Your task to perform on an android device: Search for vegetarian restaurants on Maps Image 0: 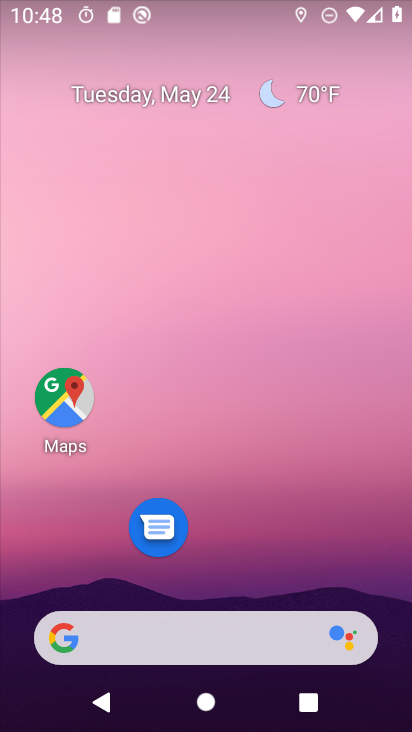
Step 0: drag from (251, 539) to (256, 93)
Your task to perform on an android device: Search for vegetarian restaurants on Maps Image 1: 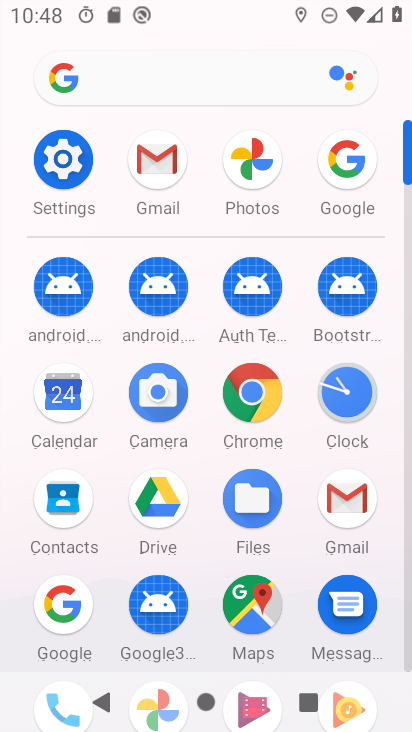
Step 1: click (257, 603)
Your task to perform on an android device: Search for vegetarian restaurants on Maps Image 2: 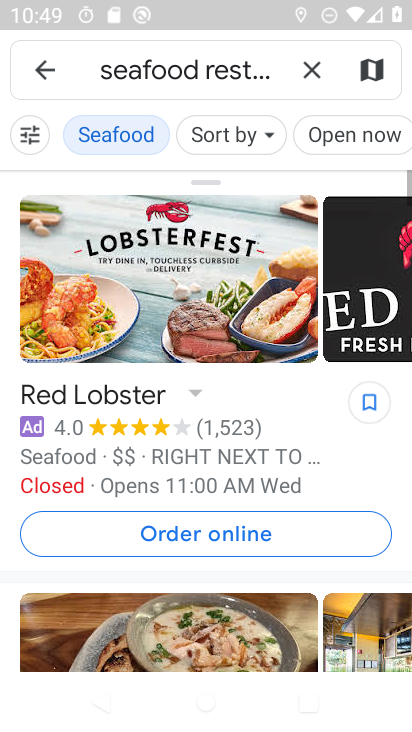
Step 2: click (276, 67)
Your task to perform on an android device: Search for vegetarian restaurants on Maps Image 3: 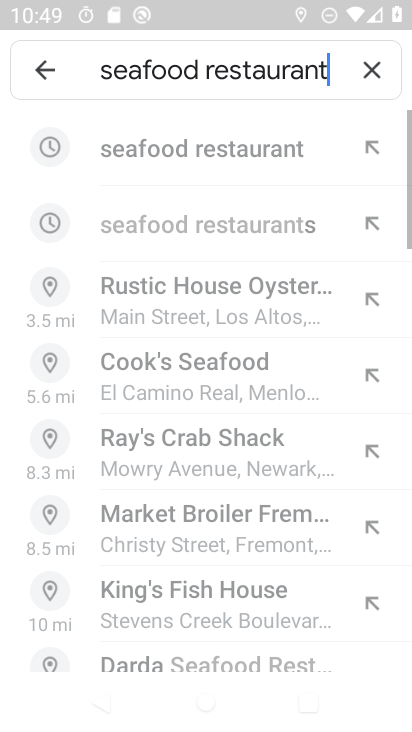
Step 3: click (366, 67)
Your task to perform on an android device: Search for vegetarian restaurants on Maps Image 4: 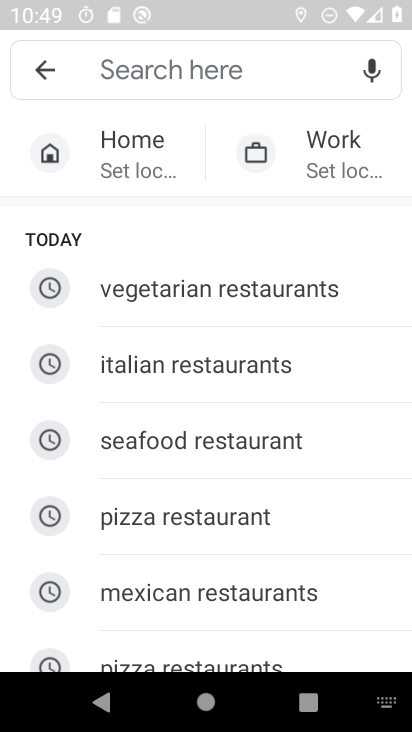
Step 4: click (185, 296)
Your task to perform on an android device: Search for vegetarian restaurants on Maps Image 5: 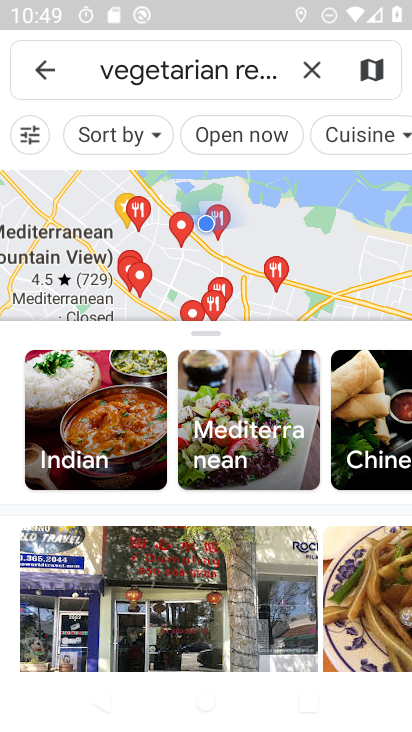
Step 5: task complete